Your task to perform on an android device: visit the assistant section in the google photos Image 0: 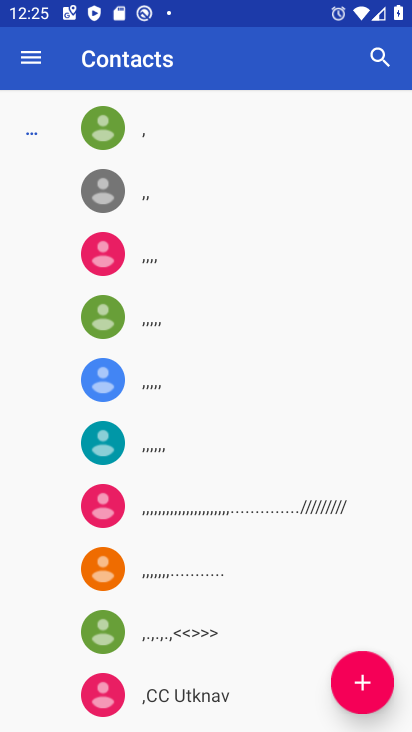
Step 0: press home button
Your task to perform on an android device: visit the assistant section in the google photos Image 1: 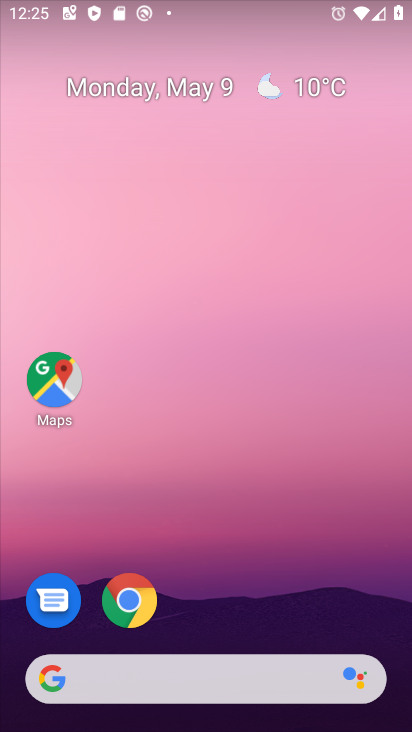
Step 1: drag from (192, 584) to (246, 246)
Your task to perform on an android device: visit the assistant section in the google photos Image 2: 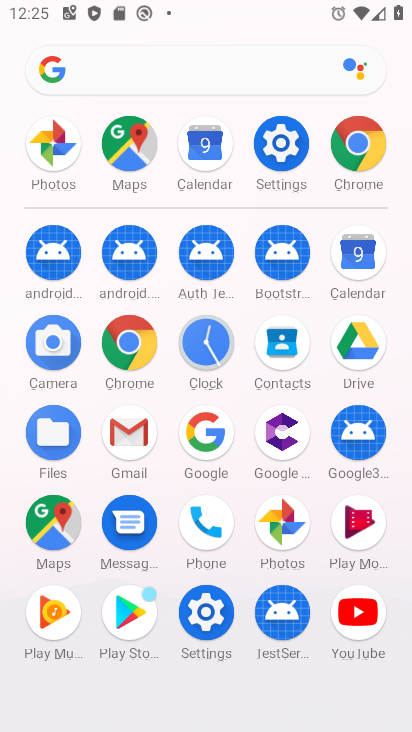
Step 2: click (282, 534)
Your task to perform on an android device: visit the assistant section in the google photos Image 3: 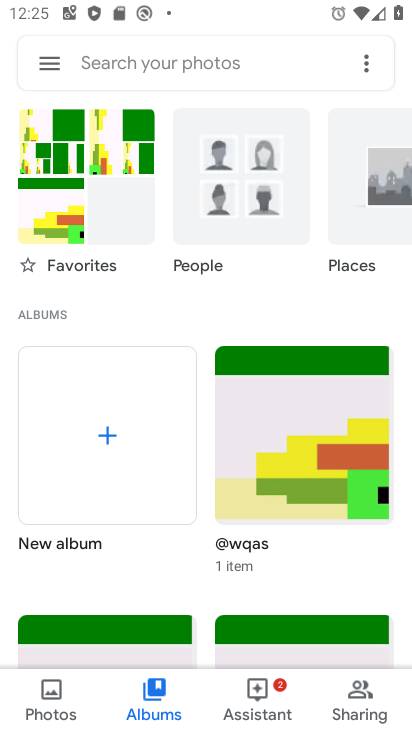
Step 3: click (255, 690)
Your task to perform on an android device: visit the assistant section in the google photos Image 4: 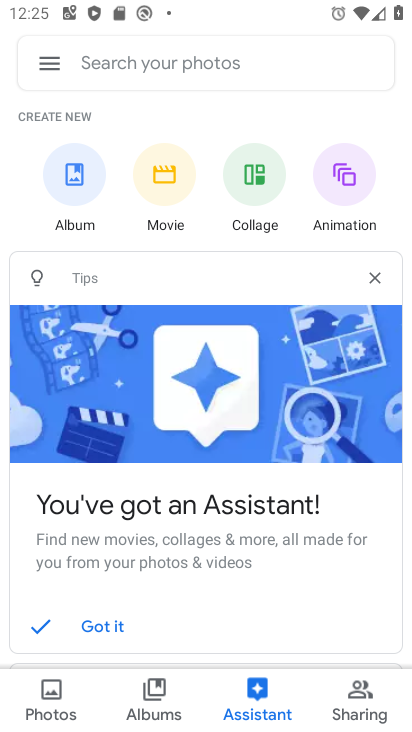
Step 4: task complete